Your task to perform on an android device: turn on javascript in the chrome app Image 0: 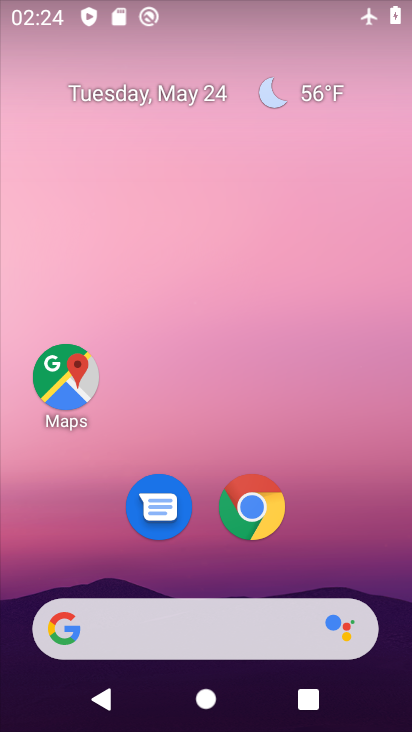
Step 0: click (271, 512)
Your task to perform on an android device: turn on javascript in the chrome app Image 1: 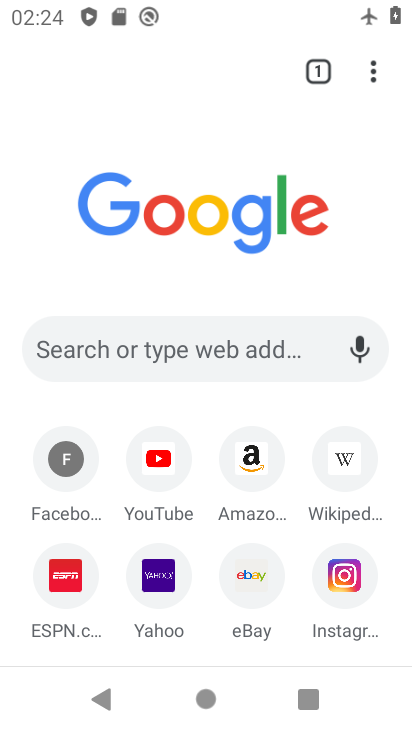
Step 1: drag from (362, 72) to (242, 515)
Your task to perform on an android device: turn on javascript in the chrome app Image 2: 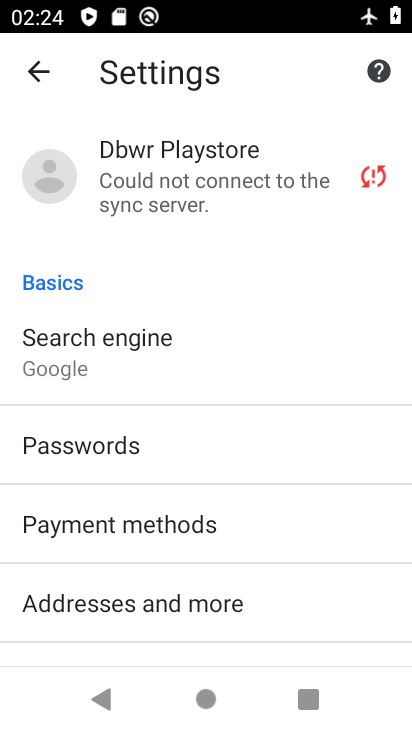
Step 2: drag from (107, 617) to (225, 253)
Your task to perform on an android device: turn on javascript in the chrome app Image 3: 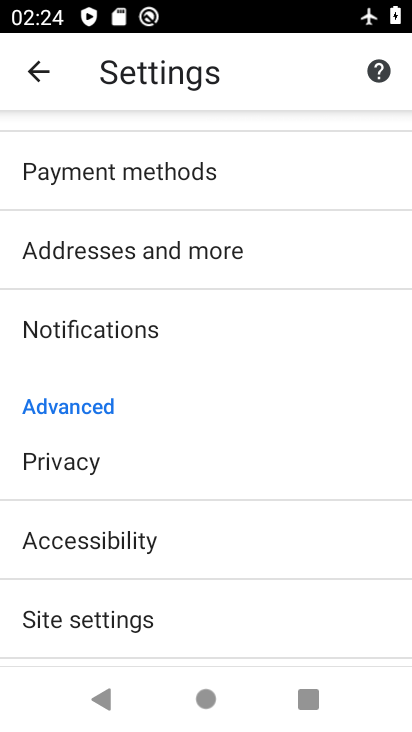
Step 3: drag from (149, 634) to (208, 435)
Your task to perform on an android device: turn on javascript in the chrome app Image 4: 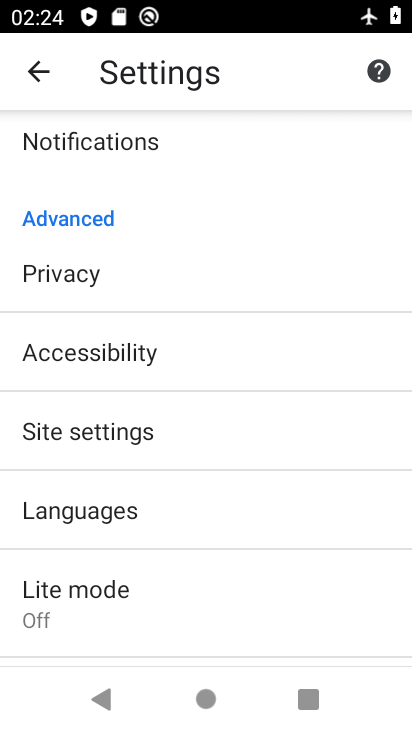
Step 4: click (166, 449)
Your task to perform on an android device: turn on javascript in the chrome app Image 5: 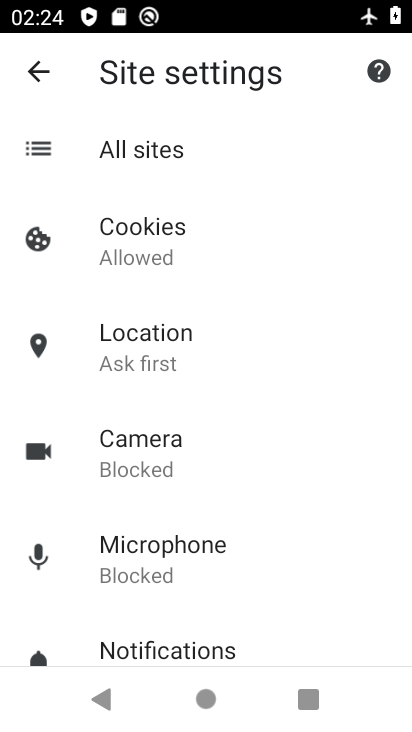
Step 5: drag from (137, 587) to (225, 284)
Your task to perform on an android device: turn on javascript in the chrome app Image 6: 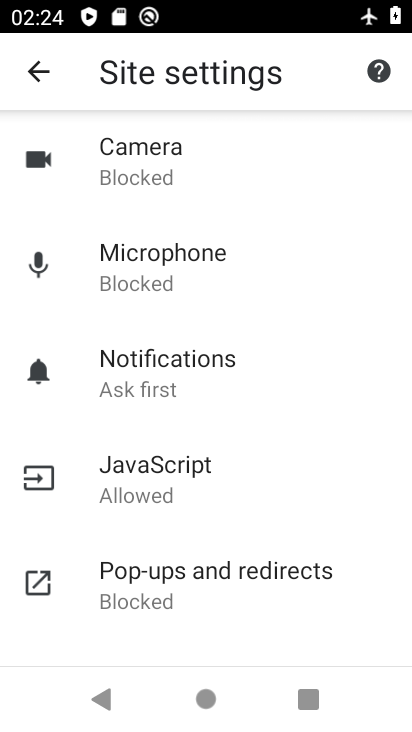
Step 6: click (244, 482)
Your task to perform on an android device: turn on javascript in the chrome app Image 7: 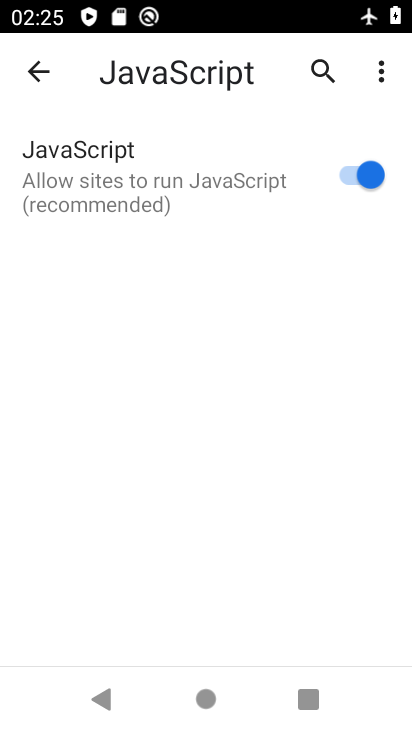
Step 7: task complete